Your task to perform on an android device: create a new album in the google photos Image 0: 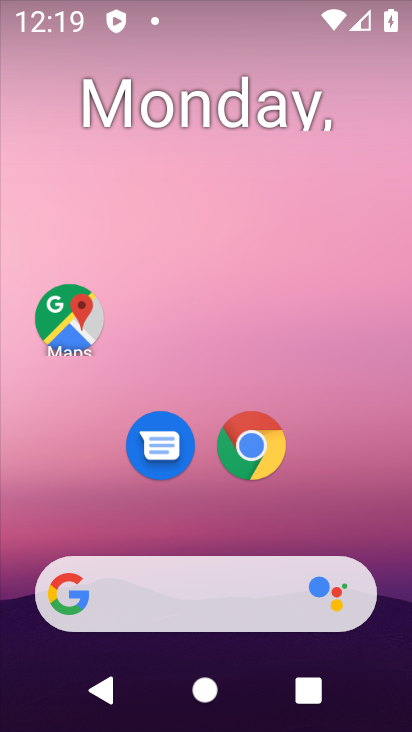
Step 0: drag from (342, 503) to (249, 11)
Your task to perform on an android device: create a new album in the google photos Image 1: 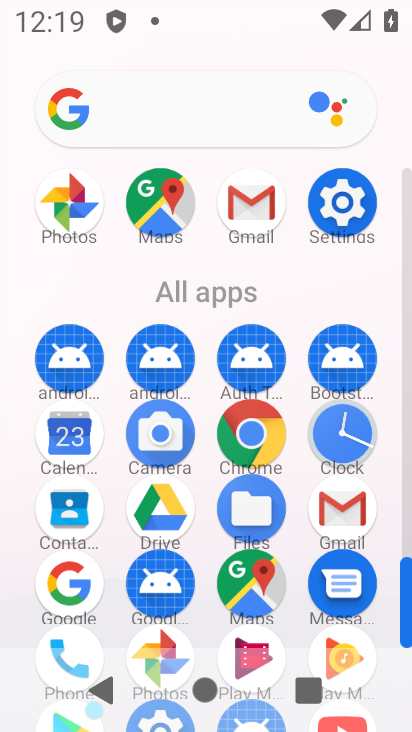
Step 1: click (69, 200)
Your task to perform on an android device: create a new album in the google photos Image 2: 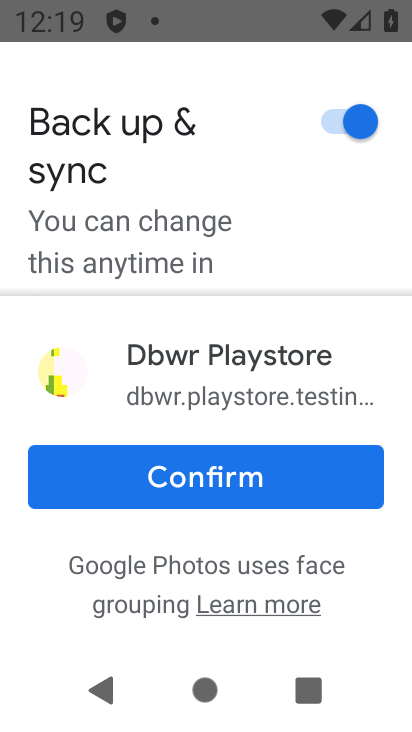
Step 2: click (212, 475)
Your task to perform on an android device: create a new album in the google photos Image 3: 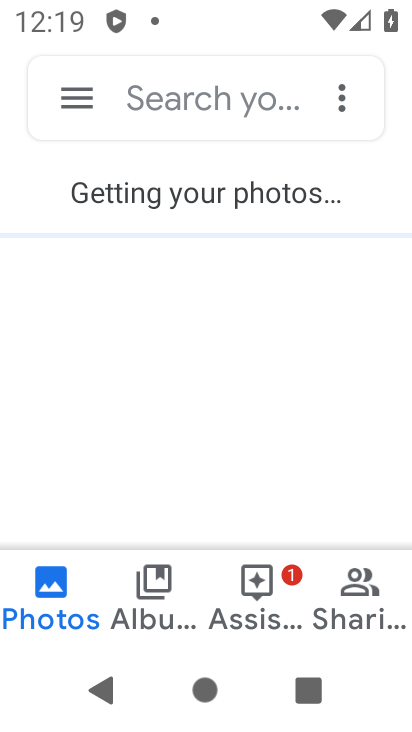
Step 3: click (343, 98)
Your task to perform on an android device: create a new album in the google photos Image 4: 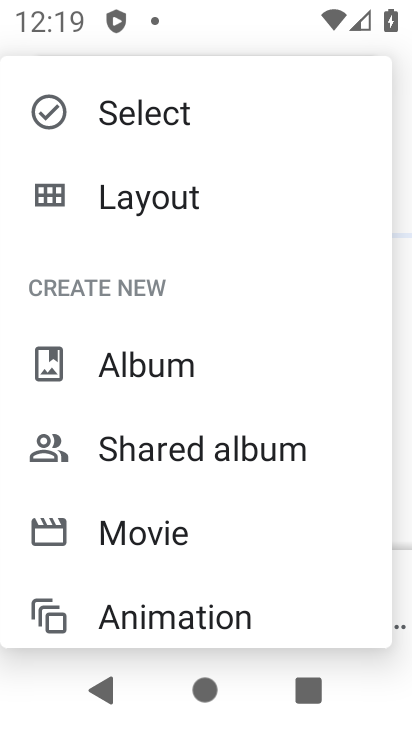
Step 4: click (181, 363)
Your task to perform on an android device: create a new album in the google photos Image 5: 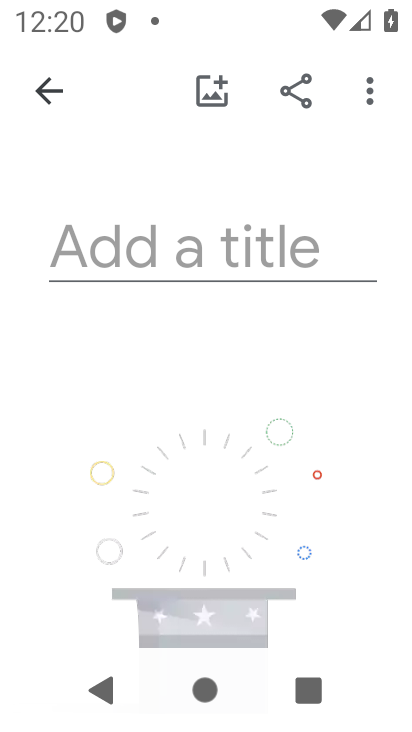
Step 5: click (234, 268)
Your task to perform on an android device: create a new album in the google photos Image 6: 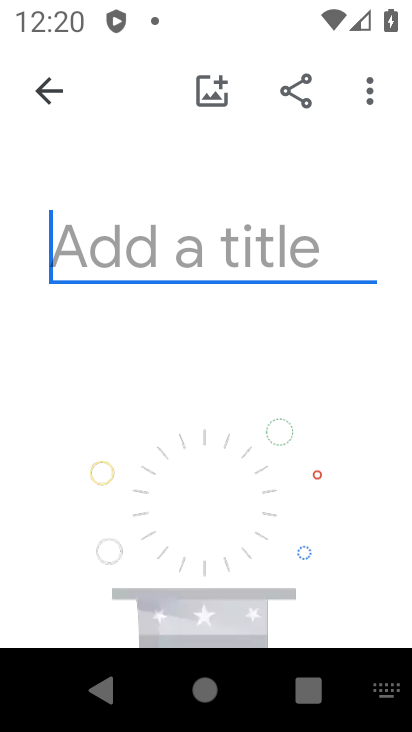
Step 6: type "Kanchana"
Your task to perform on an android device: create a new album in the google photos Image 7: 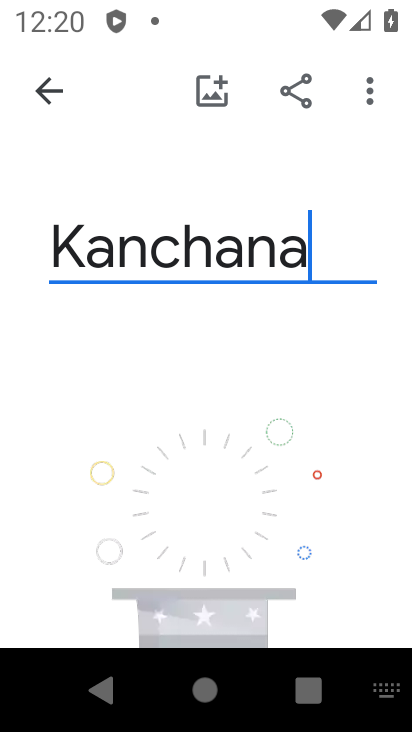
Step 7: type ""
Your task to perform on an android device: create a new album in the google photos Image 8: 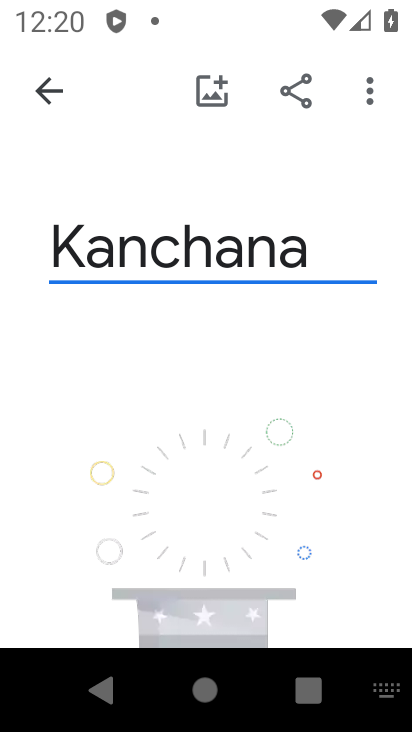
Step 8: drag from (261, 540) to (391, 226)
Your task to perform on an android device: create a new album in the google photos Image 9: 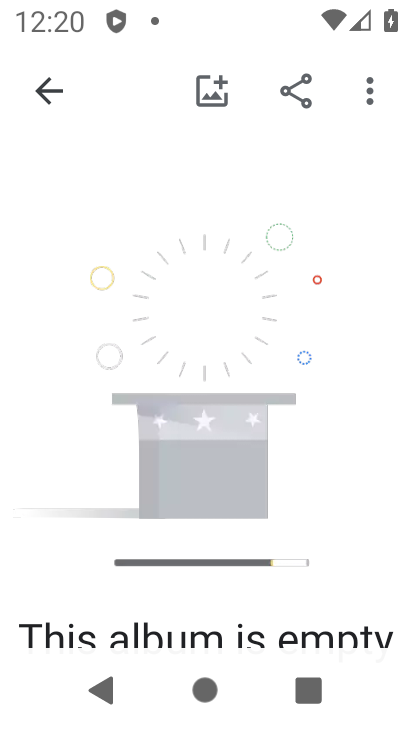
Step 9: drag from (236, 525) to (311, 327)
Your task to perform on an android device: create a new album in the google photos Image 10: 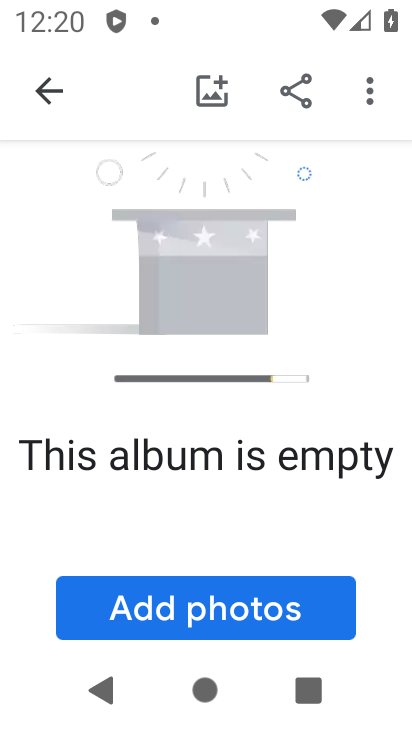
Step 10: click (193, 591)
Your task to perform on an android device: create a new album in the google photos Image 11: 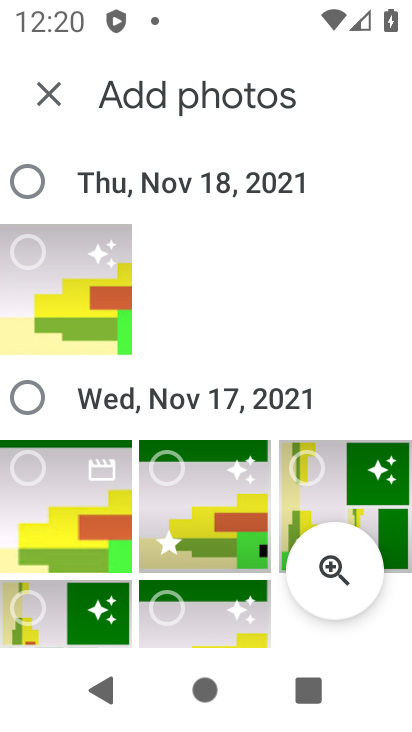
Step 11: click (24, 175)
Your task to perform on an android device: create a new album in the google photos Image 12: 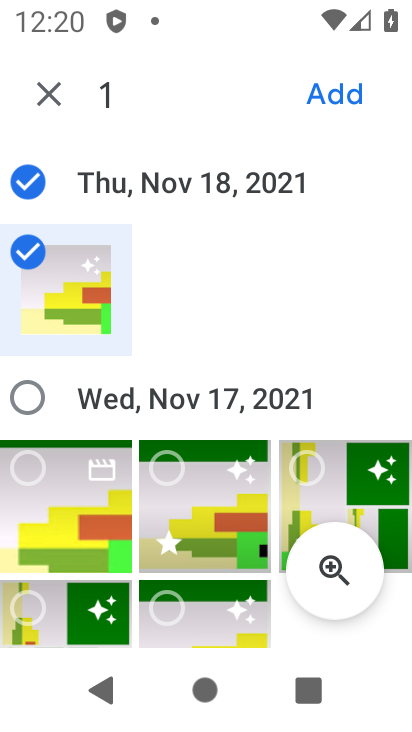
Step 12: click (329, 97)
Your task to perform on an android device: create a new album in the google photos Image 13: 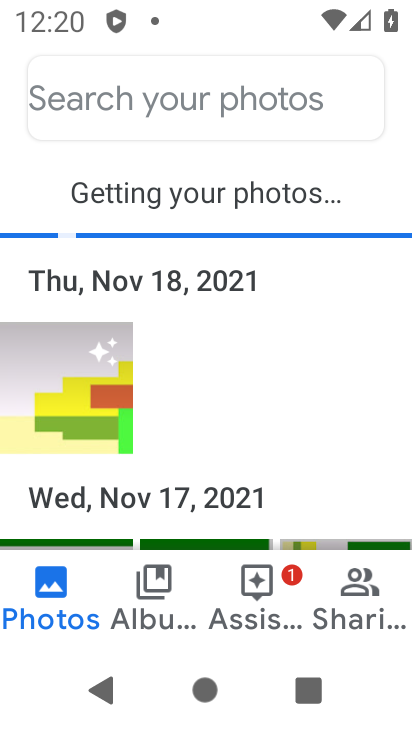
Step 13: task complete